Your task to perform on an android device: Show me the alarms in the clock app Image 0: 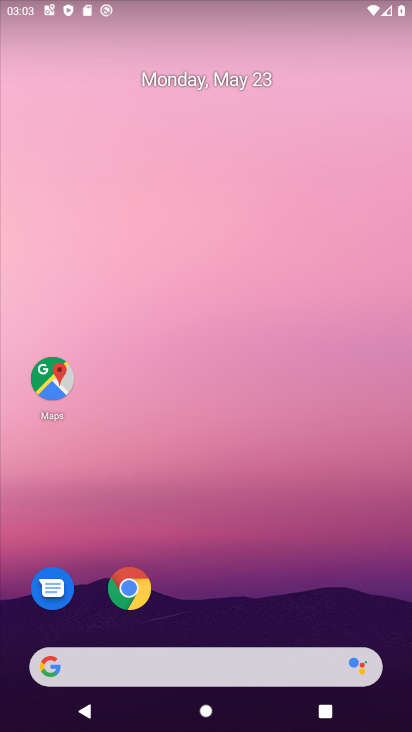
Step 0: drag from (144, 629) to (144, 123)
Your task to perform on an android device: Show me the alarms in the clock app Image 1: 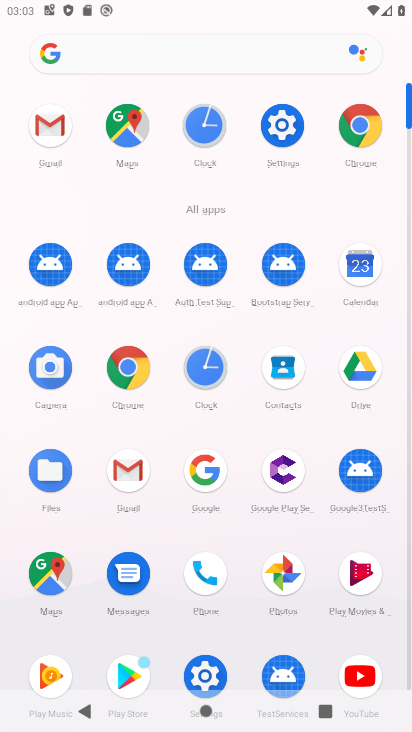
Step 1: click (203, 361)
Your task to perform on an android device: Show me the alarms in the clock app Image 2: 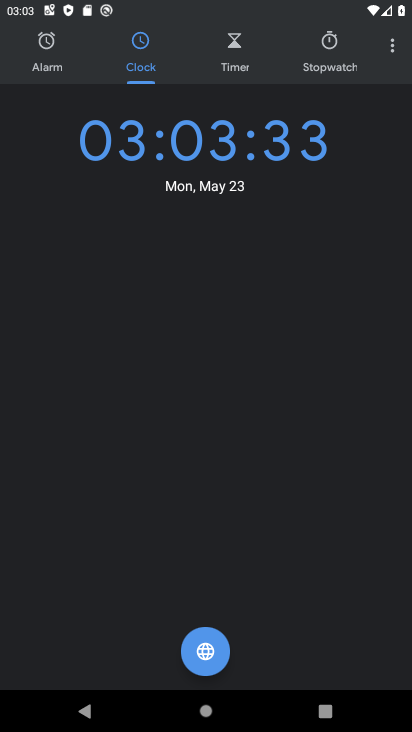
Step 2: click (48, 62)
Your task to perform on an android device: Show me the alarms in the clock app Image 3: 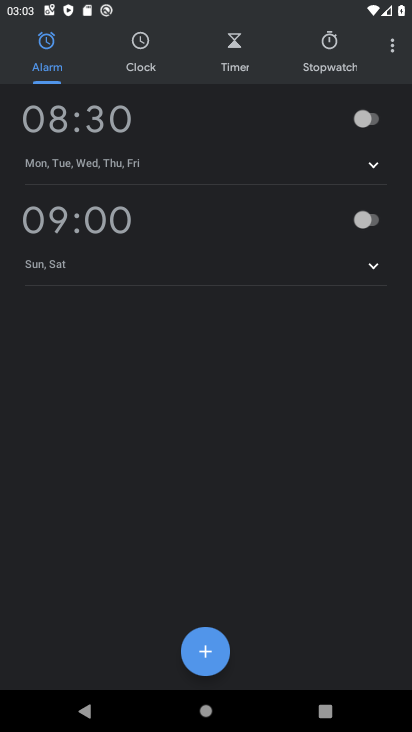
Step 3: task complete